Your task to perform on an android device: turn off picture-in-picture Image 0: 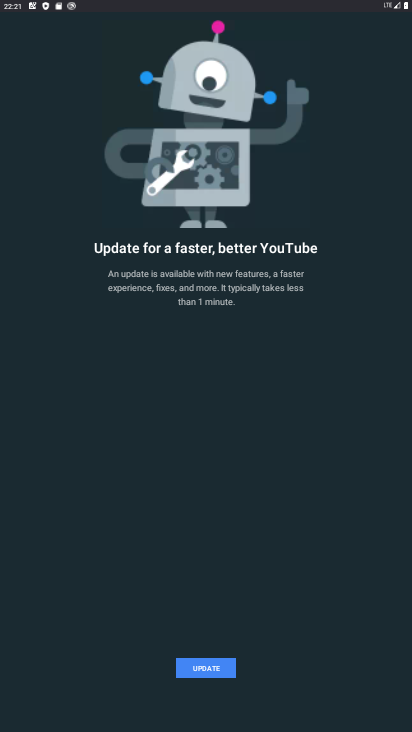
Step 0: press home button
Your task to perform on an android device: turn off picture-in-picture Image 1: 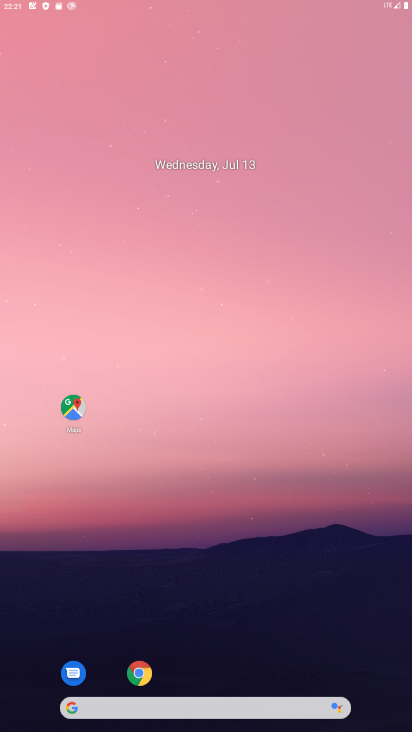
Step 1: drag from (223, 468) to (363, 107)
Your task to perform on an android device: turn off picture-in-picture Image 2: 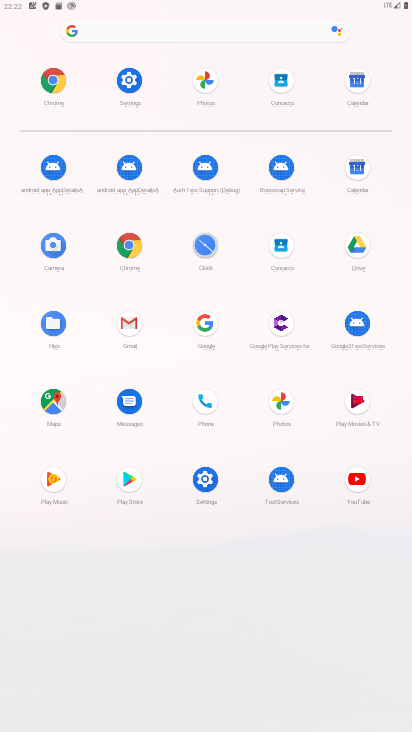
Step 2: click (200, 483)
Your task to perform on an android device: turn off picture-in-picture Image 3: 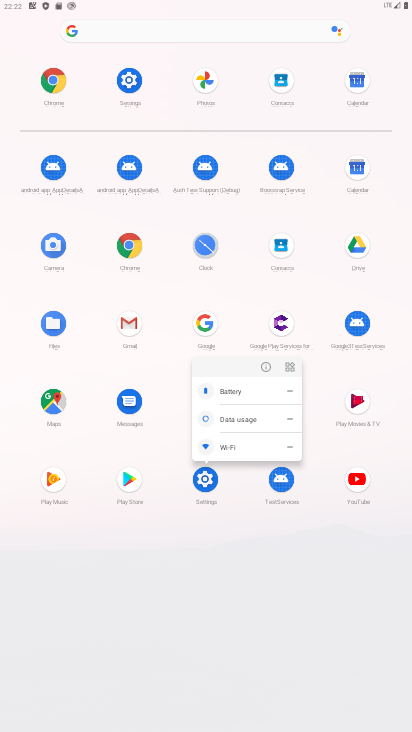
Step 3: click (273, 366)
Your task to perform on an android device: turn off picture-in-picture Image 4: 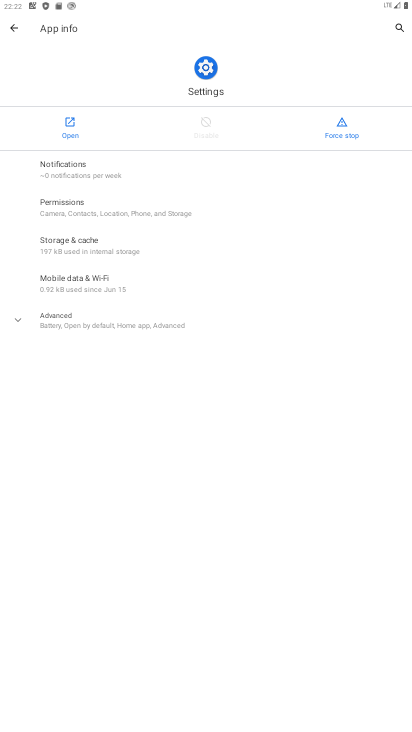
Step 4: click (52, 122)
Your task to perform on an android device: turn off picture-in-picture Image 5: 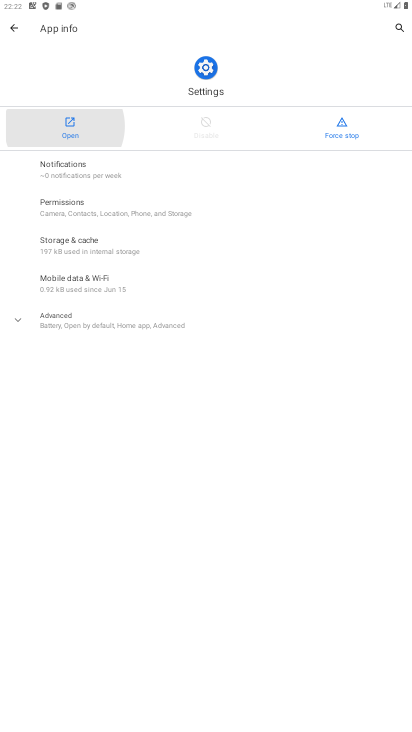
Step 5: click (64, 122)
Your task to perform on an android device: turn off picture-in-picture Image 6: 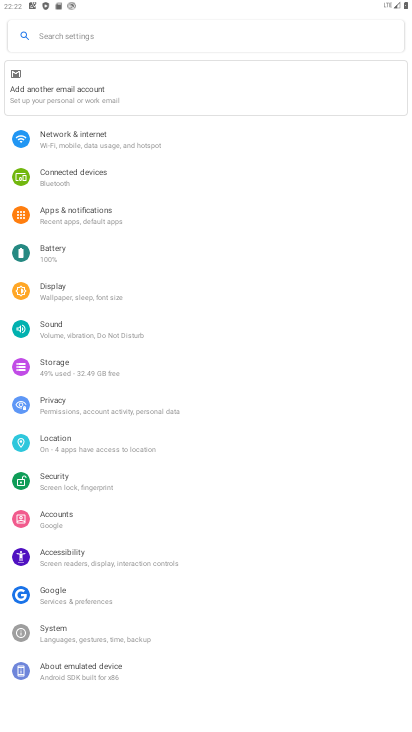
Step 6: click (82, 217)
Your task to perform on an android device: turn off picture-in-picture Image 7: 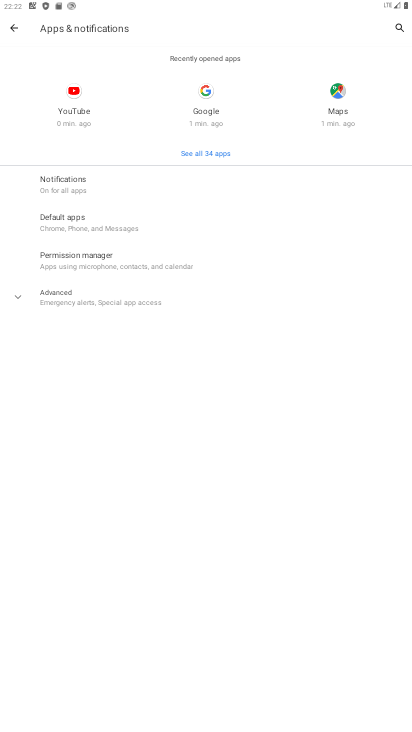
Step 7: click (88, 294)
Your task to perform on an android device: turn off picture-in-picture Image 8: 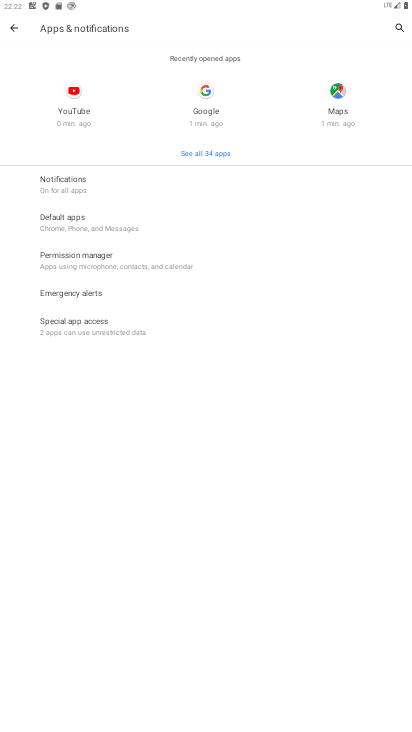
Step 8: click (94, 333)
Your task to perform on an android device: turn off picture-in-picture Image 9: 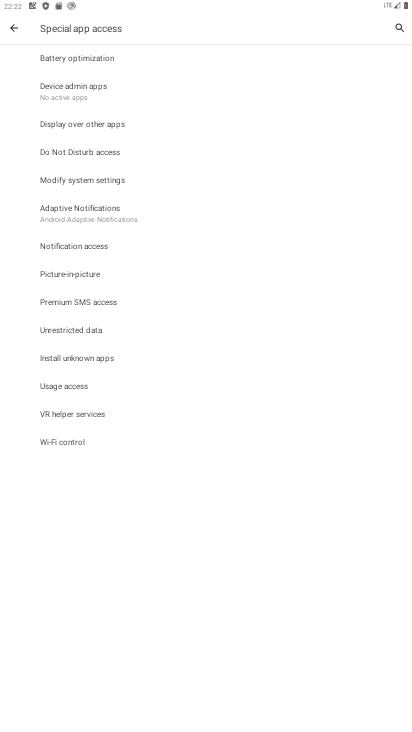
Step 9: click (101, 274)
Your task to perform on an android device: turn off picture-in-picture Image 10: 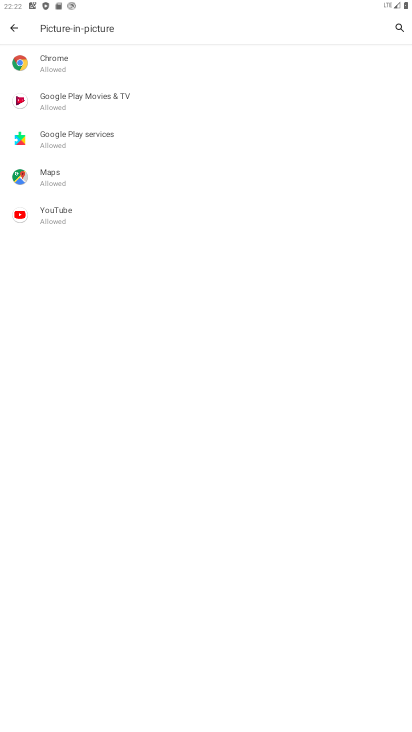
Step 10: task complete